Your task to perform on an android device: When is my next meeting? Image 0: 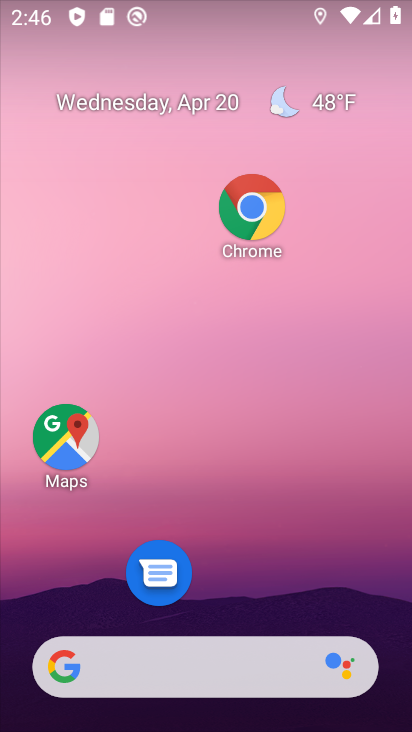
Step 0: drag from (297, 667) to (359, 195)
Your task to perform on an android device: When is my next meeting? Image 1: 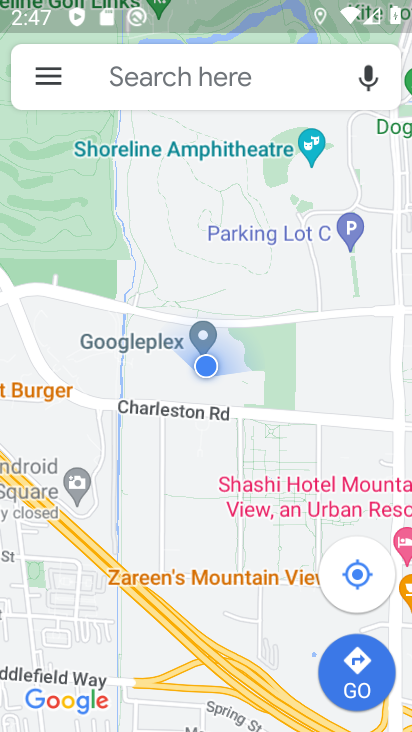
Step 1: press home button
Your task to perform on an android device: When is my next meeting? Image 2: 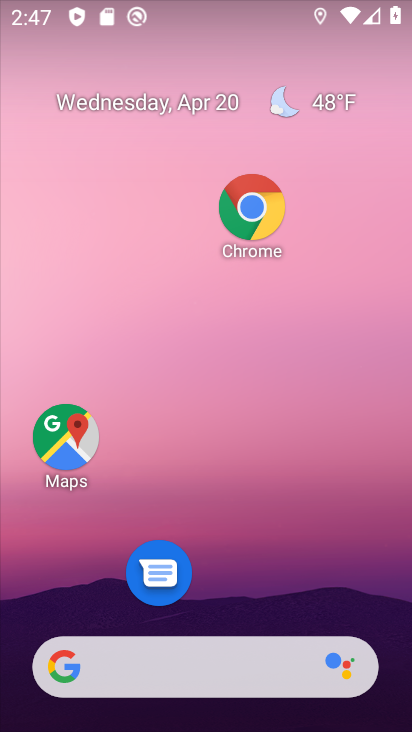
Step 2: drag from (276, 604) to (323, 63)
Your task to perform on an android device: When is my next meeting? Image 3: 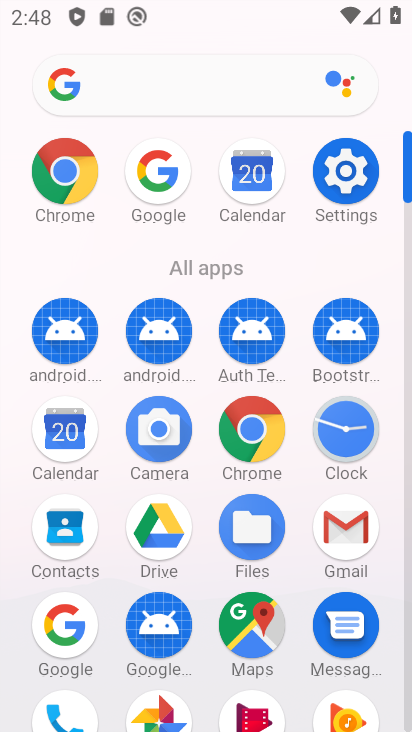
Step 3: click (72, 445)
Your task to perform on an android device: When is my next meeting? Image 4: 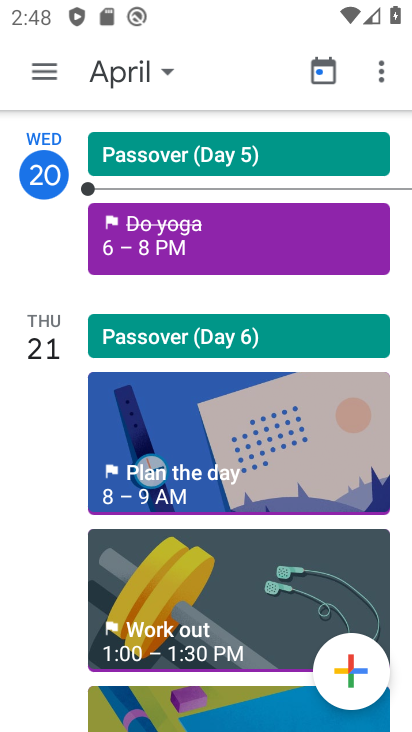
Step 4: task complete